Your task to perform on an android device: Open eBay Image 0: 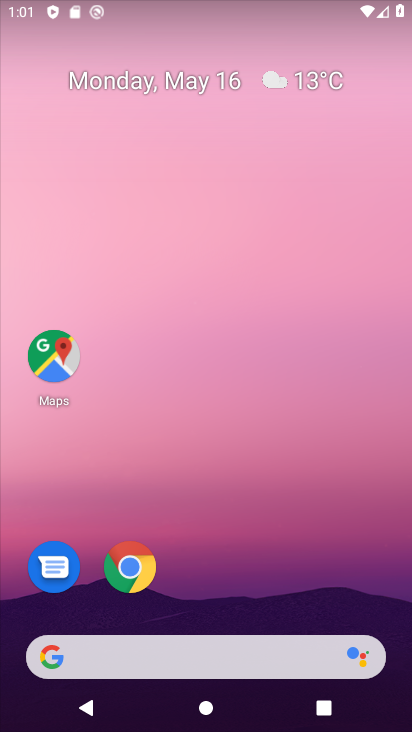
Step 0: click (135, 562)
Your task to perform on an android device: Open eBay Image 1: 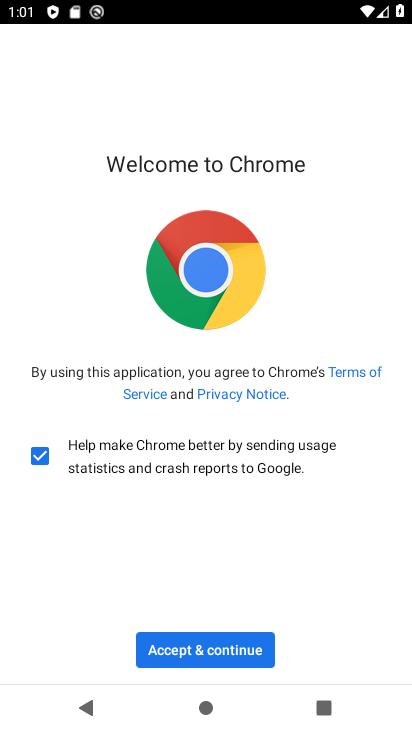
Step 1: click (213, 645)
Your task to perform on an android device: Open eBay Image 2: 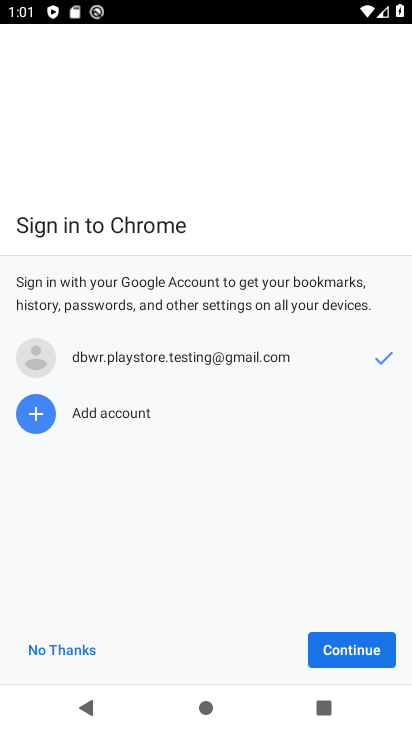
Step 2: click (356, 640)
Your task to perform on an android device: Open eBay Image 3: 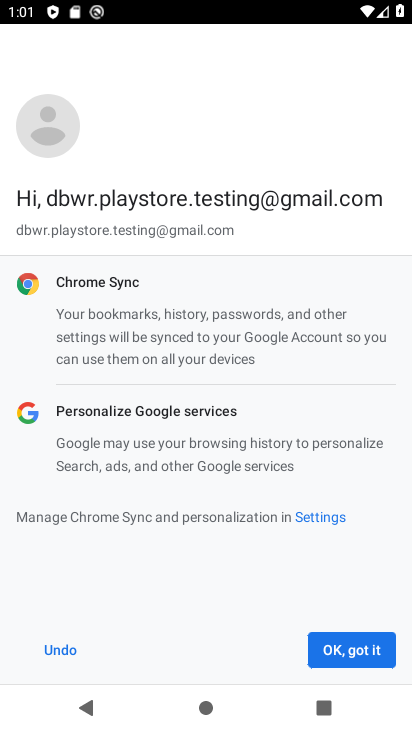
Step 3: click (344, 655)
Your task to perform on an android device: Open eBay Image 4: 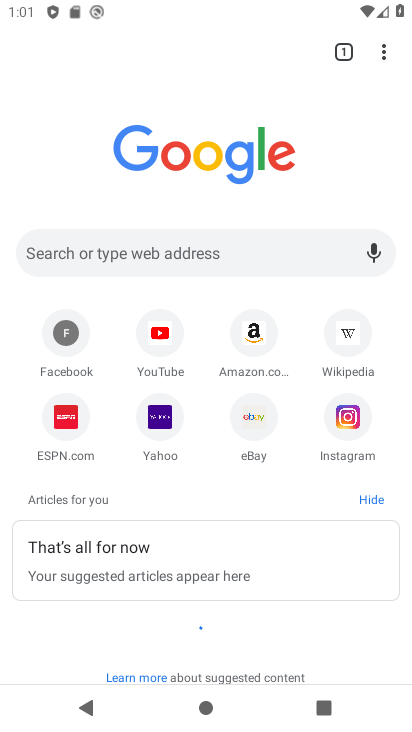
Step 4: click (258, 420)
Your task to perform on an android device: Open eBay Image 5: 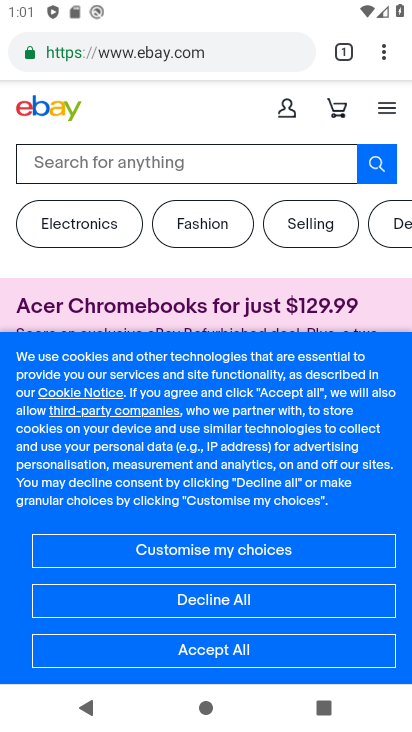
Step 5: task complete